Your task to perform on an android device: search for starred emails in the gmail app Image 0: 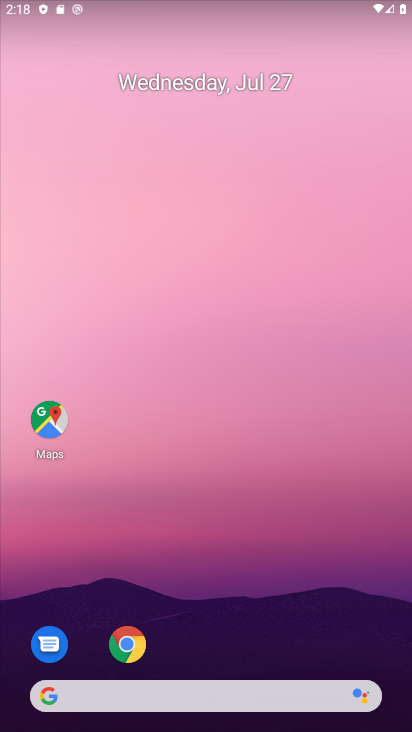
Step 0: drag from (303, 644) to (253, 119)
Your task to perform on an android device: search for starred emails in the gmail app Image 1: 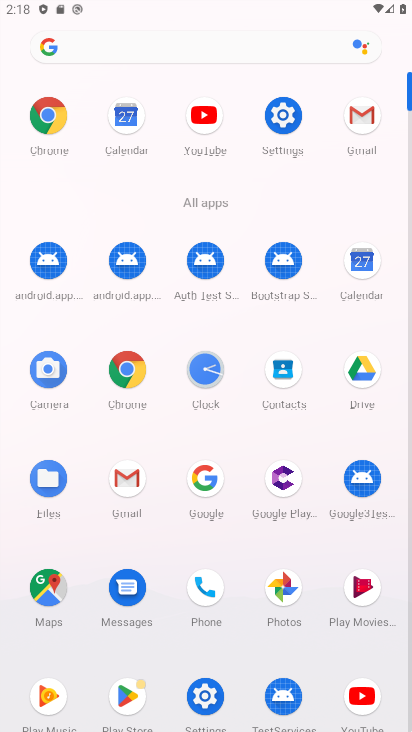
Step 1: click (359, 121)
Your task to perform on an android device: search for starred emails in the gmail app Image 2: 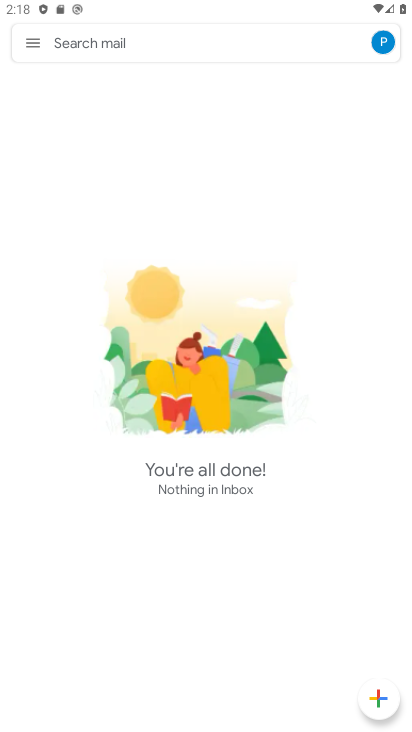
Step 2: click (33, 38)
Your task to perform on an android device: search for starred emails in the gmail app Image 3: 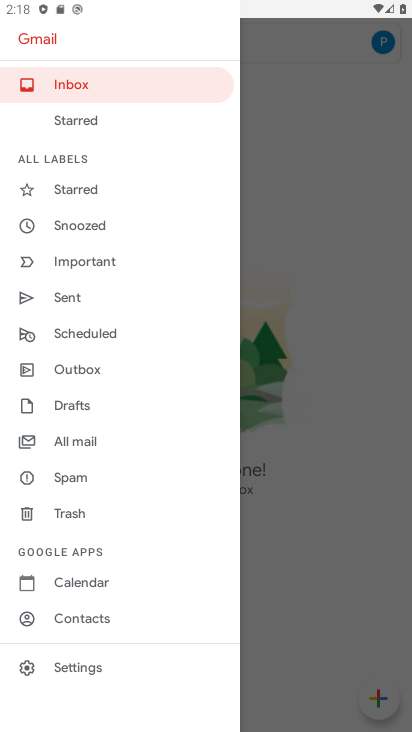
Step 3: click (101, 184)
Your task to perform on an android device: search for starred emails in the gmail app Image 4: 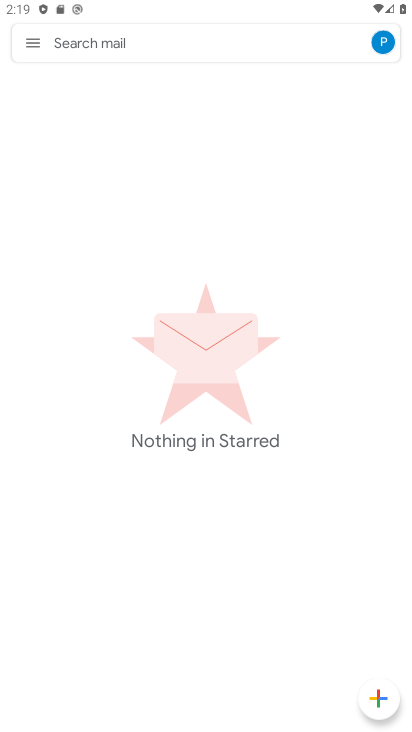
Step 4: task complete